Your task to perform on an android device: star an email in the gmail app Image 0: 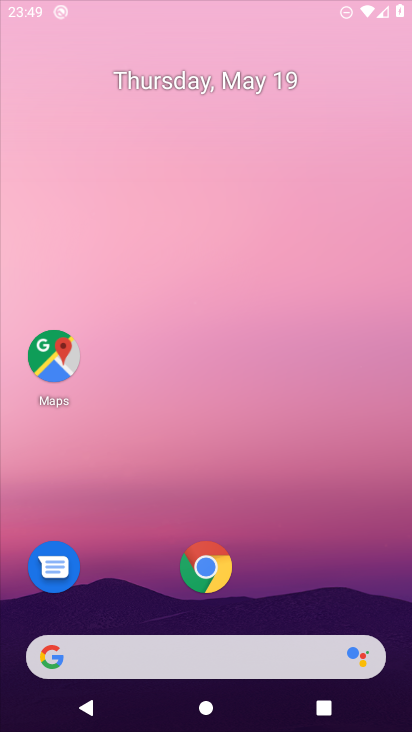
Step 0: drag from (307, 275) to (315, 22)
Your task to perform on an android device: star an email in the gmail app Image 1: 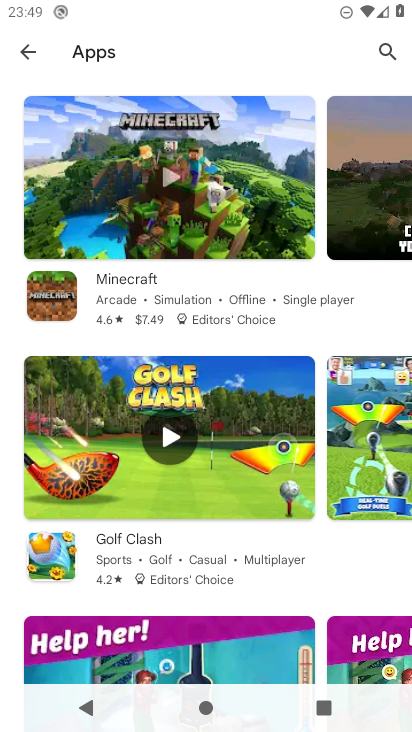
Step 1: press home button
Your task to perform on an android device: star an email in the gmail app Image 2: 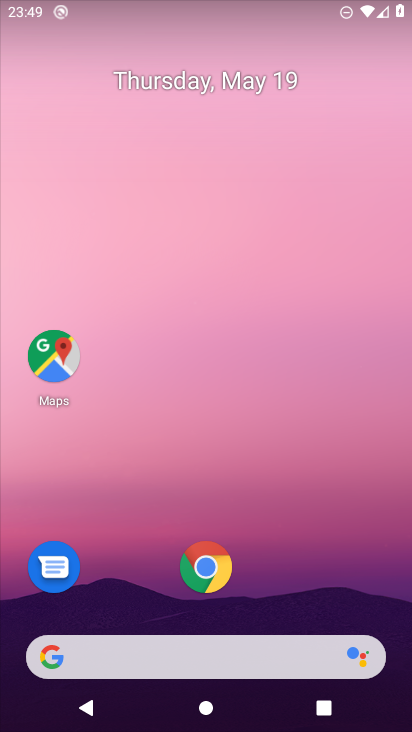
Step 2: drag from (262, 610) to (272, 58)
Your task to perform on an android device: star an email in the gmail app Image 3: 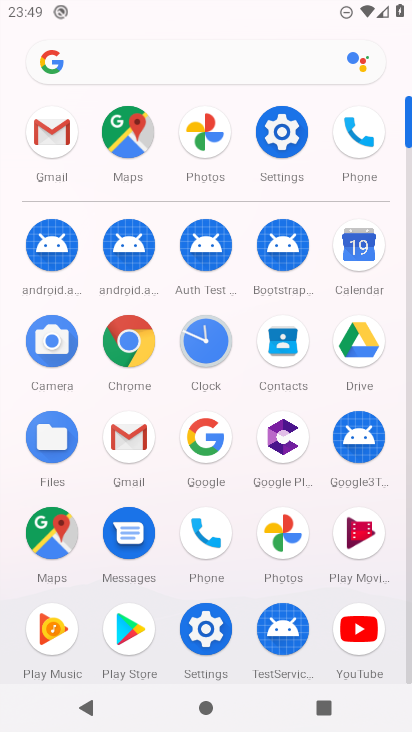
Step 3: click (130, 433)
Your task to perform on an android device: star an email in the gmail app Image 4: 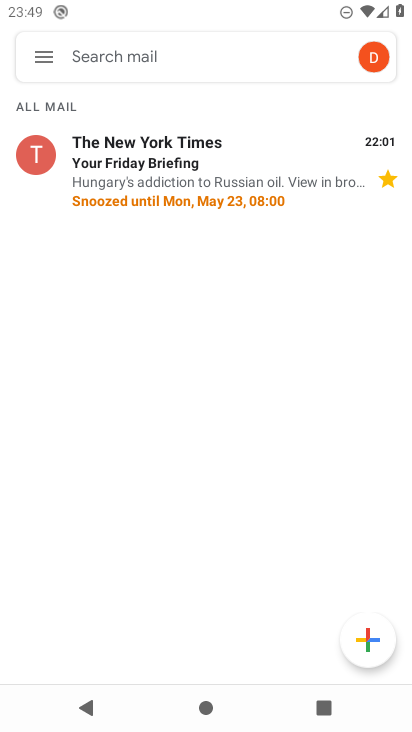
Step 4: task complete